Your task to perform on an android device: add a contact in the contacts app Image 0: 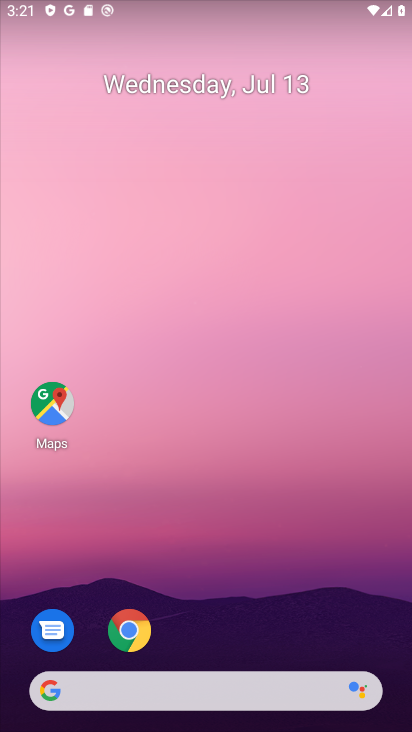
Step 0: drag from (208, 565) to (211, 323)
Your task to perform on an android device: add a contact in the contacts app Image 1: 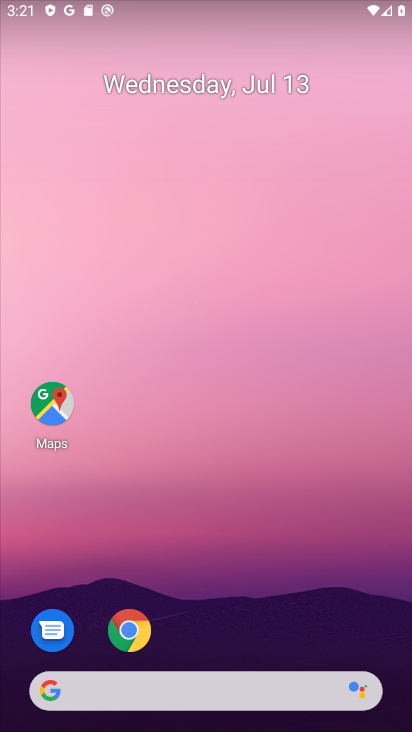
Step 1: drag from (211, 644) to (294, 95)
Your task to perform on an android device: add a contact in the contacts app Image 2: 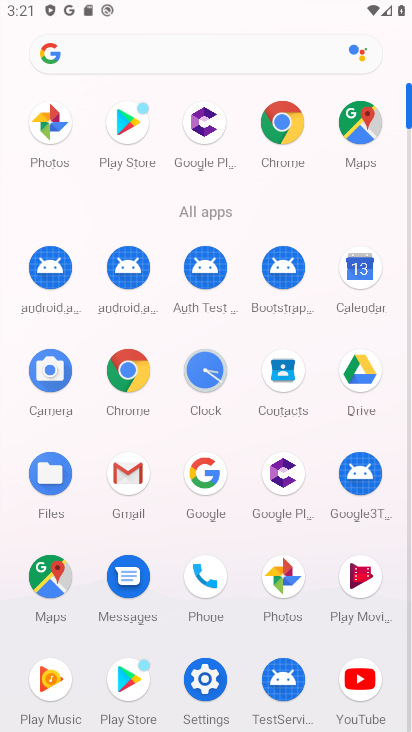
Step 2: click (273, 398)
Your task to perform on an android device: add a contact in the contacts app Image 3: 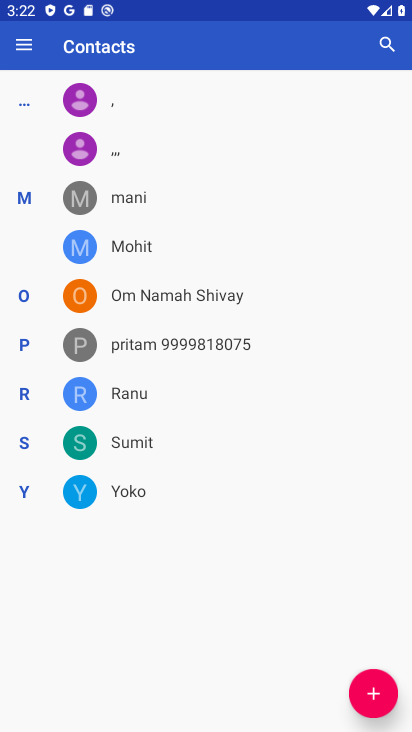
Step 3: click (373, 677)
Your task to perform on an android device: add a contact in the contacts app Image 4: 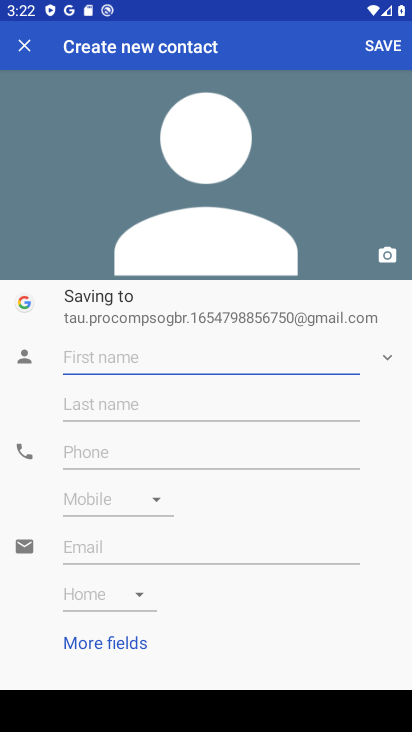
Step 4: type "Narin"
Your task to perform on an android device: add a contact in the contacts app Image 5: 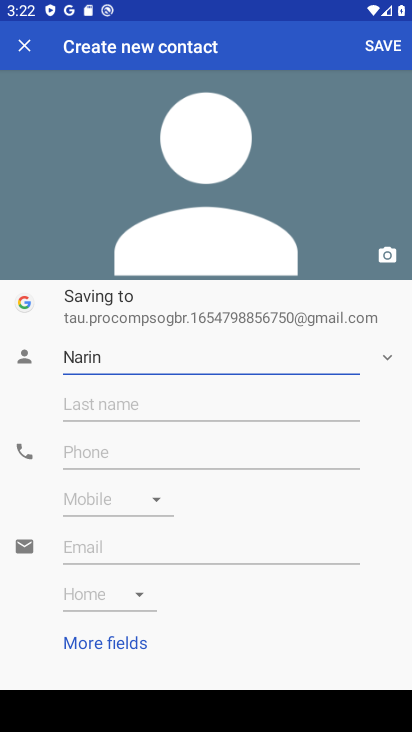
Step 5: click (303, 444)
Your task to perform on an android device: add a contact in the contacts app Image 6: 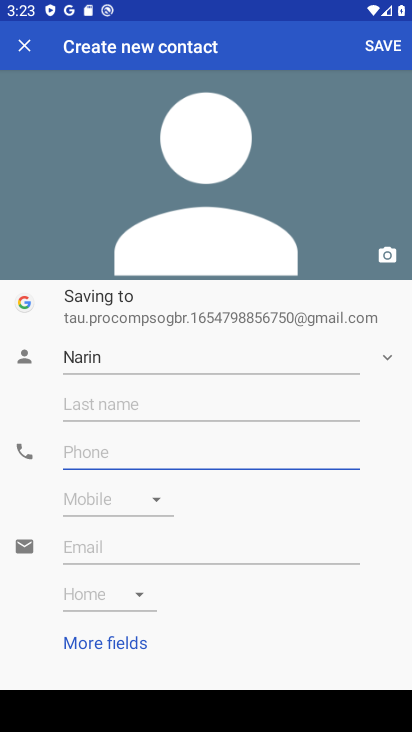
Step 6: type "8989989800"
Your task to perform on an android device: add a contact in the contacts app Image 7: 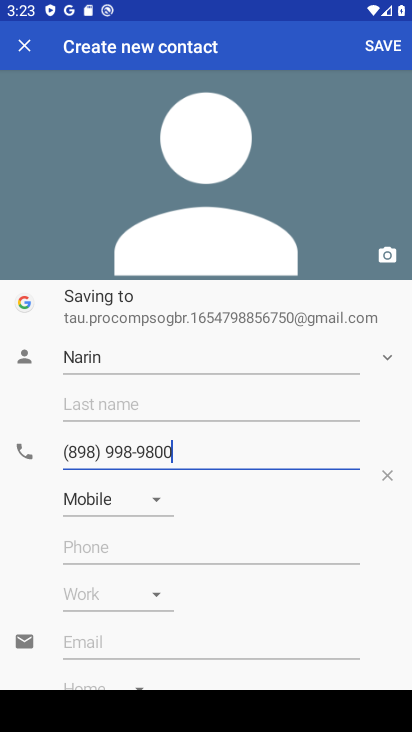
Step 7: click (376, 44)
Your task to perform on an android device: add a contact in the contacts app Image 8: 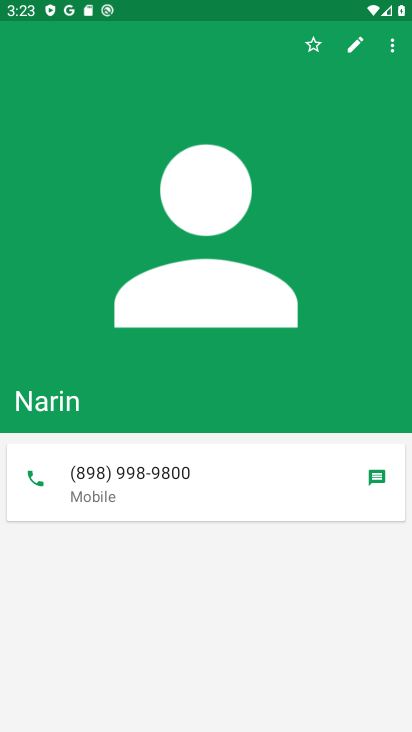
Step 8: task complete